Your task to perform on an android device: read, delete, or share a saved page in the chrome app Image 0: 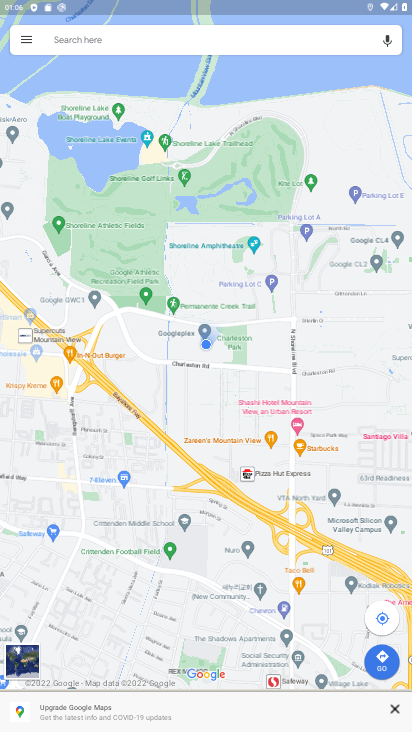
Step 0: press home button
Your task to perform on an android device: read, delete, or share a saved page in the chrome app Image 1: 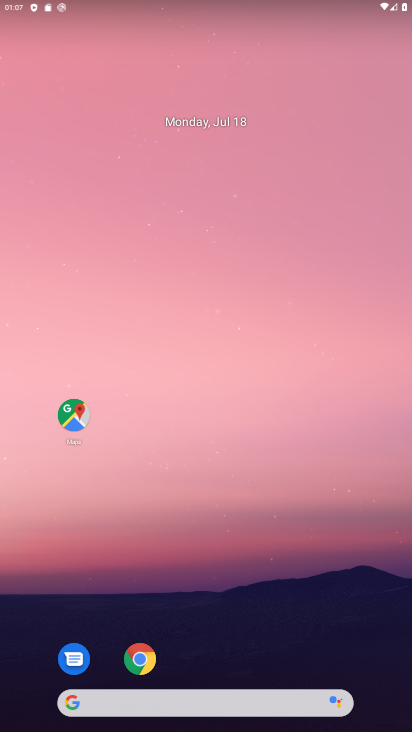
Step 1: drag from (295, 654) to (183, 62)
Your task to perform on an android device: read, delete, or share a saved page in the chrome app Image 2: 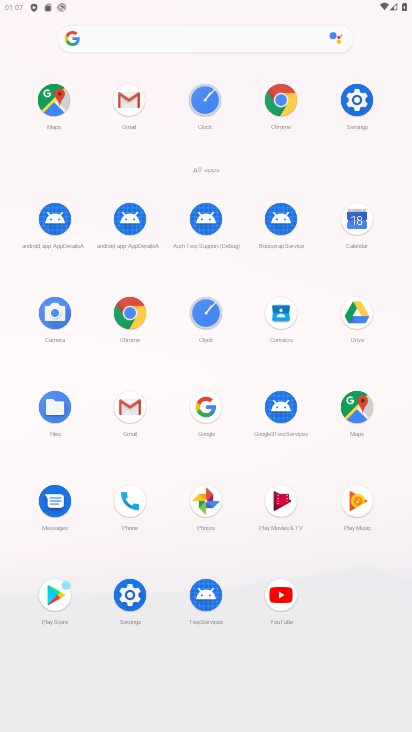
Step 2: click (129, 310)
Your task to perform on an android device: read, delete, or share a saved page in the chrome app Image 3: 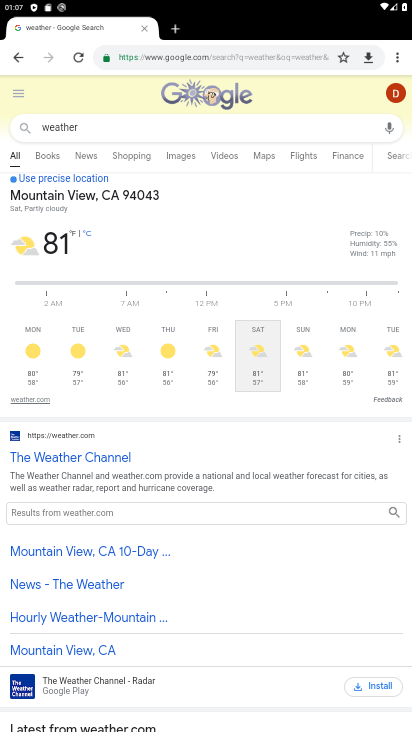
Step 3: task complete